Your task to perform on an android device: turn on notifications settings in the gmail app Image 0: 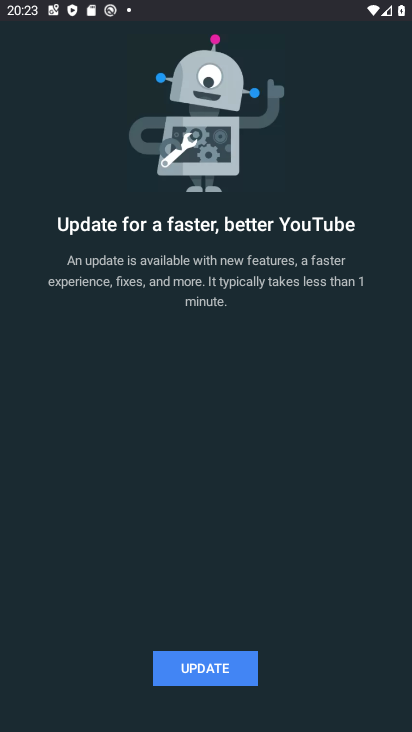
Step 0: press home button
Your task to perform on an android device: turn on notifications settings in the gmail app Image 1: 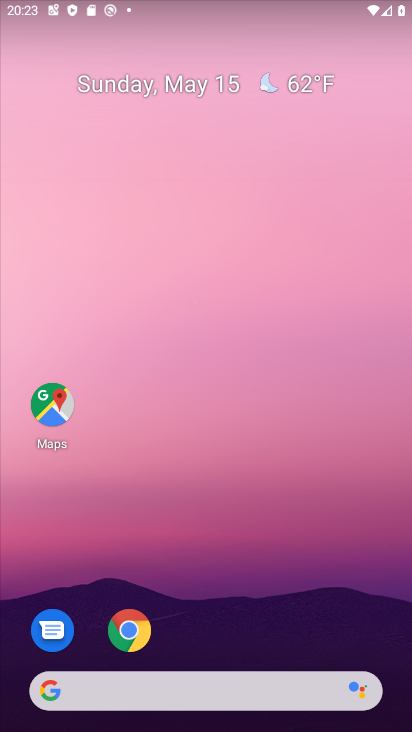
Step 1: drag from (183, 659) to (332, 67)
Your task to perform on an android device: turn on notifications settings in the gmail app Image 2: 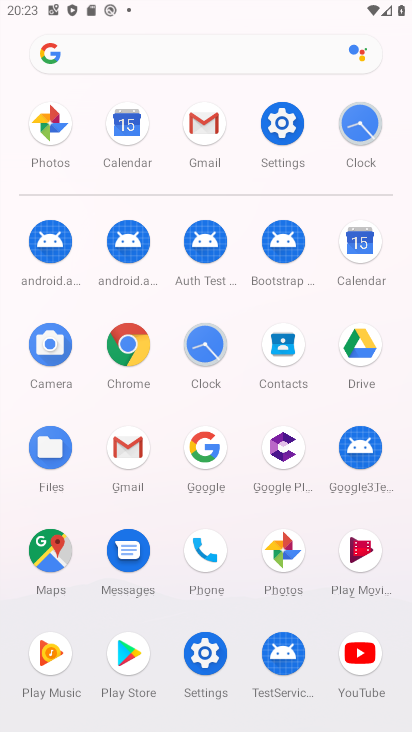
Step 2: click (136, 457)
Your task to perform on an android device: turn on notifications settings in the gmail app Image 3: 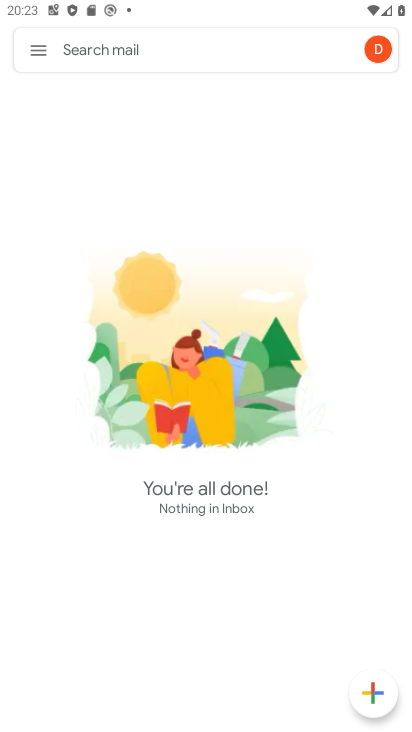
Step 3: click (36, 47)
Your task to perform on an android device: turn on notifications settings in the gmail app Image 4: 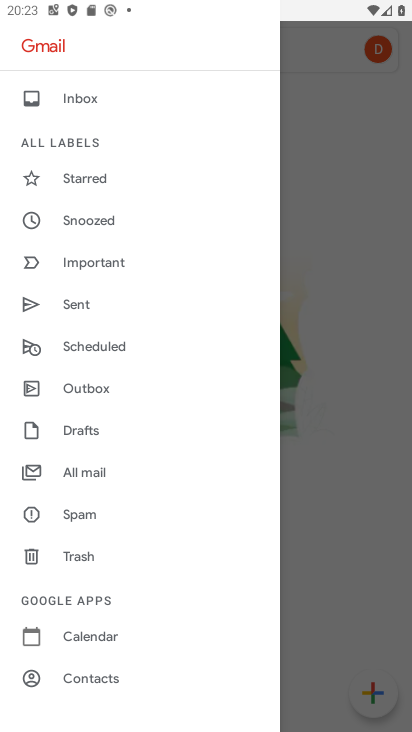
Step 4: drag from (93, 600) to (153, 217)
Your task to perform on an android device: turn on notifications settings in the gmail app Image 5: 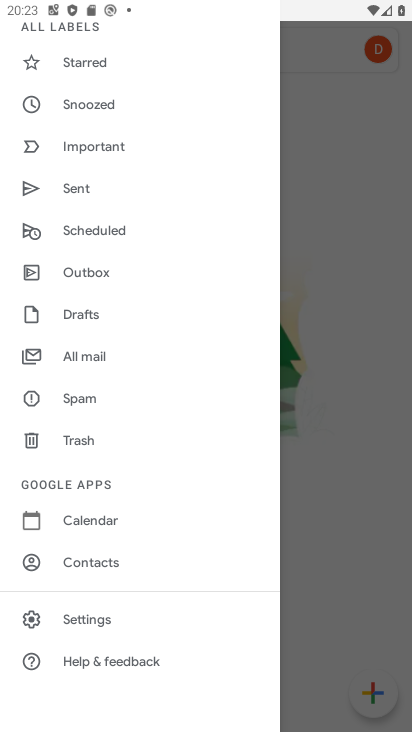
Step 5: click (106, 616)
Your task to perform on an android device: turn on notifications settings in the gmail app Image 6: 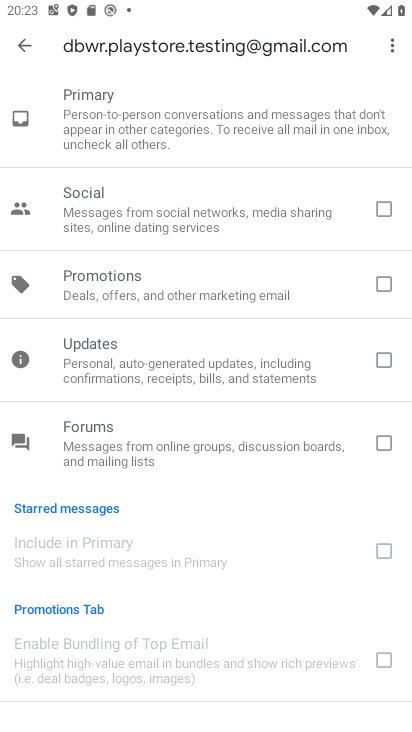
Step 6: click (23, 39)
Your task to perform on an android device: turn on notifications settings in the gmail app Image 7: 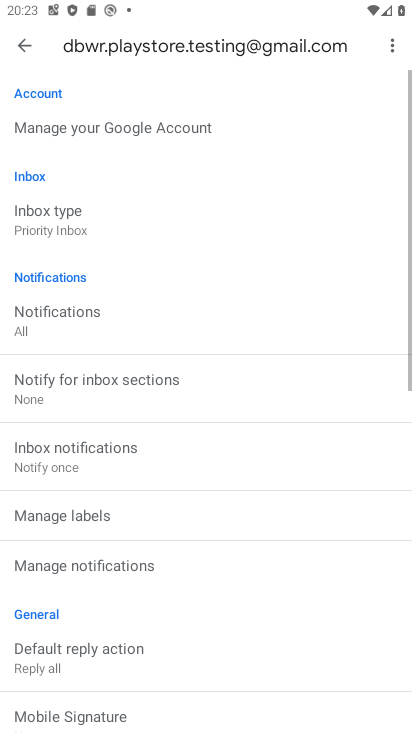
Step 7: click (23, 39)
Your task to perform on an android device: turn on notifications settings in the gmail app Image 8: 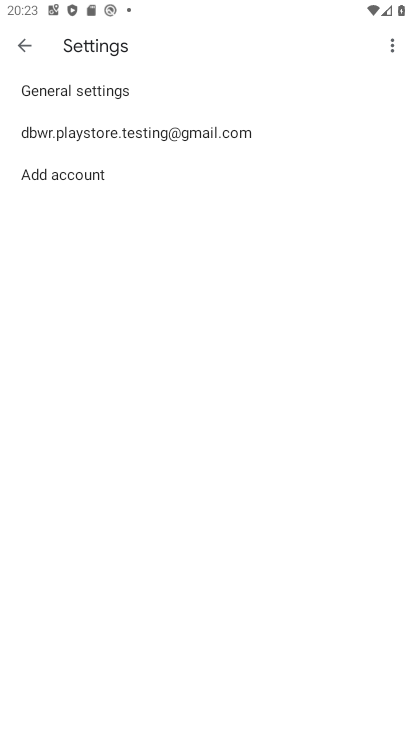
Step 8: click (136, 90)
Your task to perform on an android device: turn on notifications settings in the gmail app Image 9: 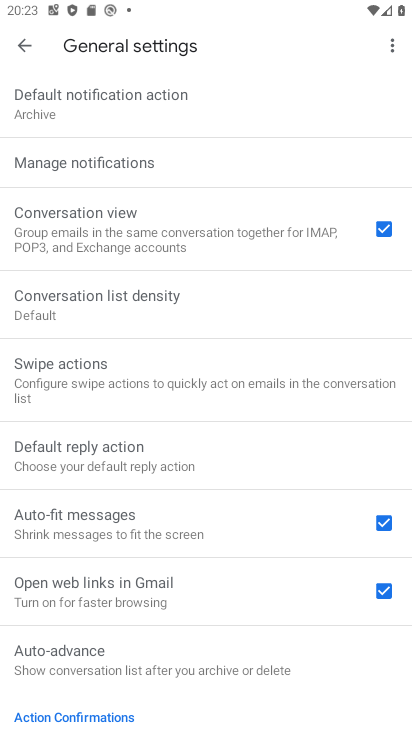
Step 9: click (142, 161)
Your task to perform on an android device: turn on notifications settings in the gmail app Image 10: 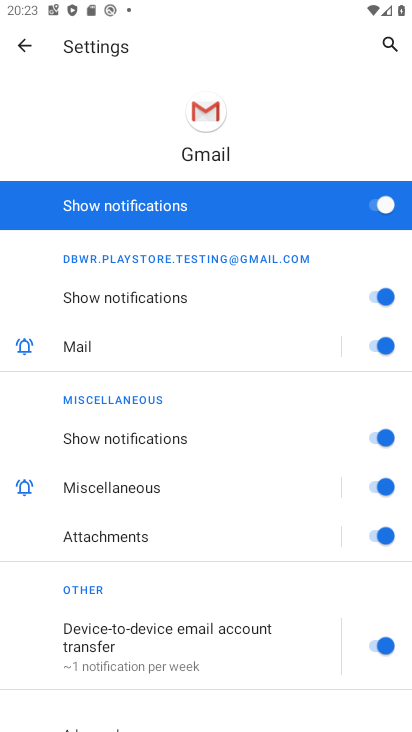
Step 10: click (364, 211)
Your task to perform on an android device: turn on notifications settings in the gmail app Image 11: 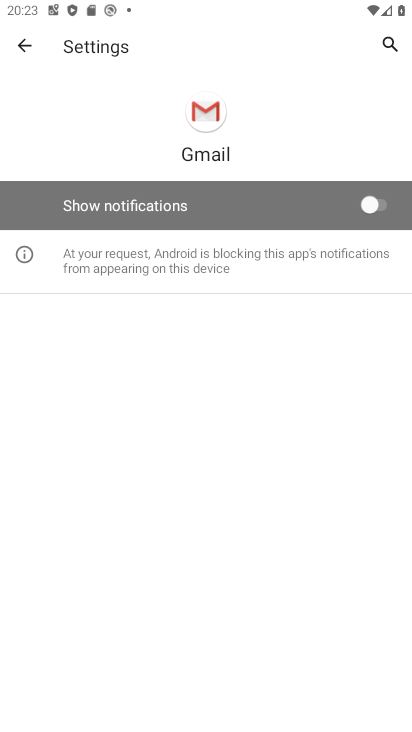
Step 11: task complete